Your task to perform on an android device: Go to location settings Image 0: 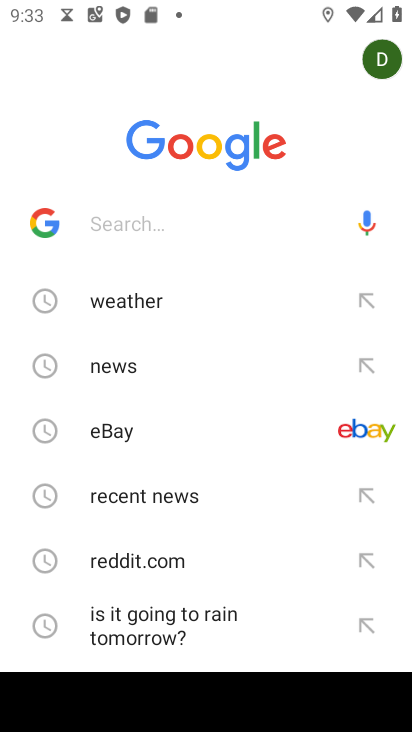
Step 0: press home button
Your task to perform on an android device: Go to location settings Image 1: 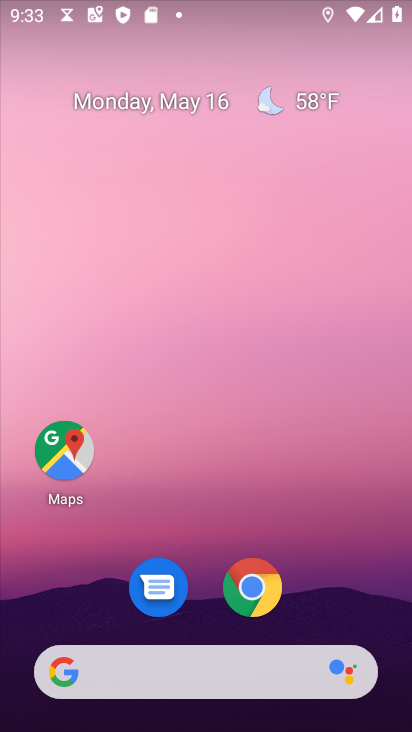
Step 1: drag from (312, 598) to (266, 189)
Your task to perform on an android device: Go to location settings Image 2: 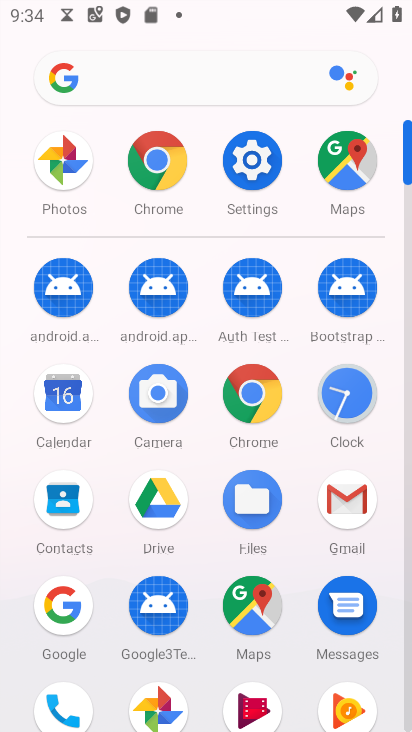
Step 2: click (256, 182)
Your task to perform on an android device: Go to location settings Image 3: 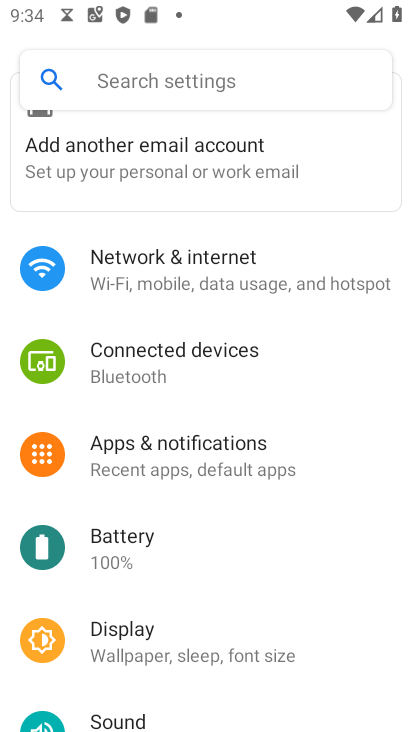
Step 3: drag from (288, 690) to (310, 342)
Your task to perform on an android device: Go to location settings Image 4: 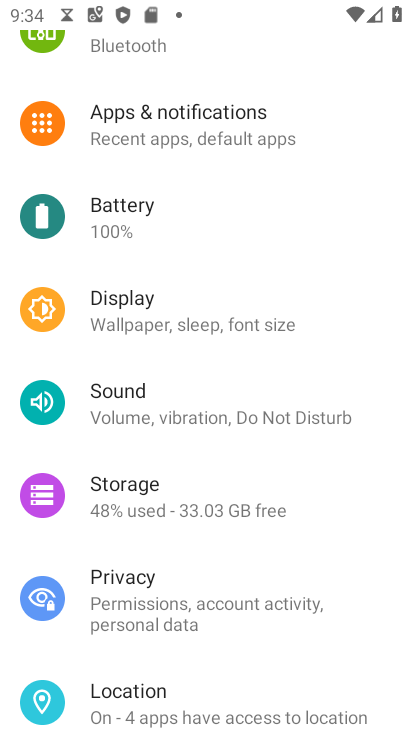
Step 4: click (254, 700)
Your task to perform on an android device: Go to location settings Image 5: 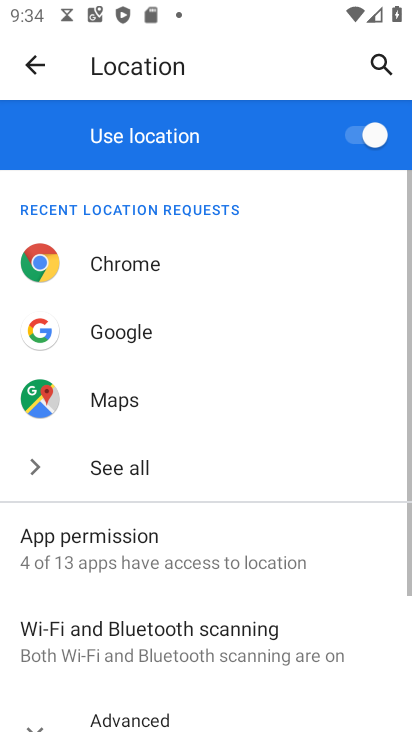
Step 5: task complete